Your task to perform on an android device: Show me popular games on the Play Store Image 0: 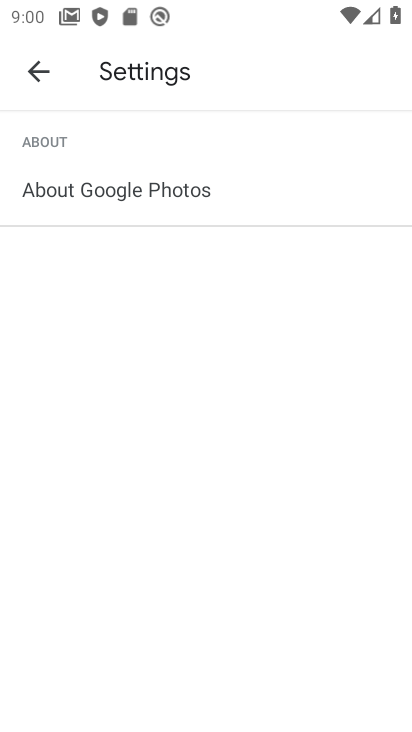
Step 0: press back button
Your task to perform on an android device: Show me popular games on the Play Store Image 1: 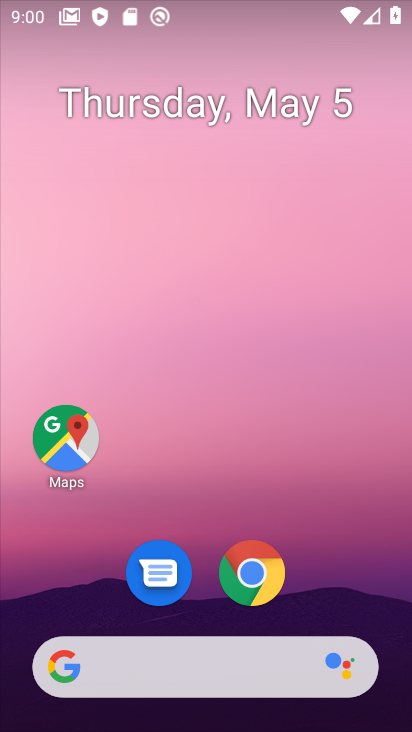
Step 1: drag from (253, 434) to (288, 39)
Your task to perform on an android device: Show me popular games on the Play Store Image 2: 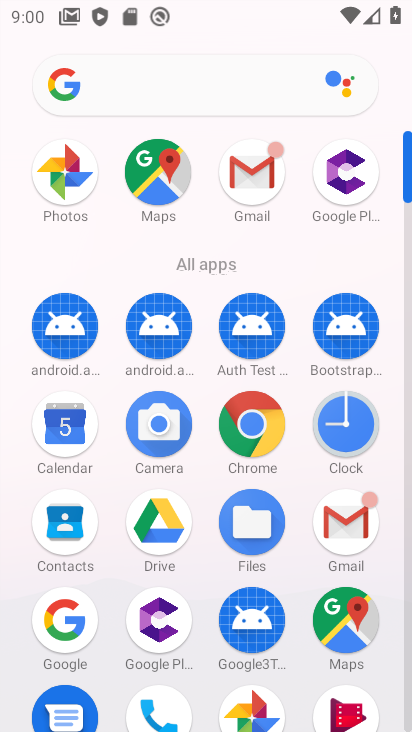
Step 2: drag from (193, 667) to (283, 86)
Your task to perform on an android device: Show me popular games on the Play Store Image 3: 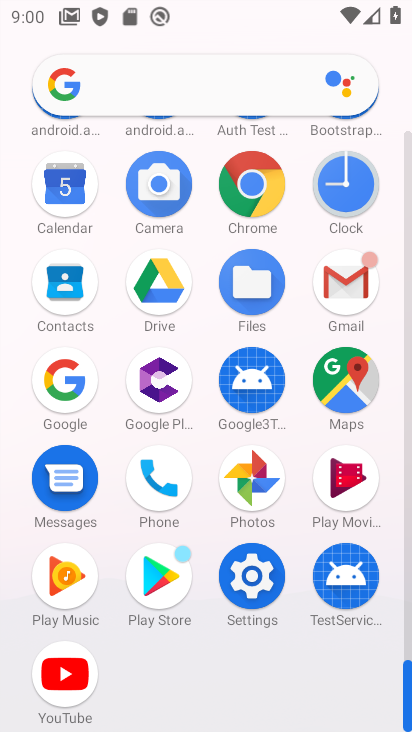
Step 3: click (160, 580)
Your task to perform on an android device: Show me popular games on the Play Store Image 4: 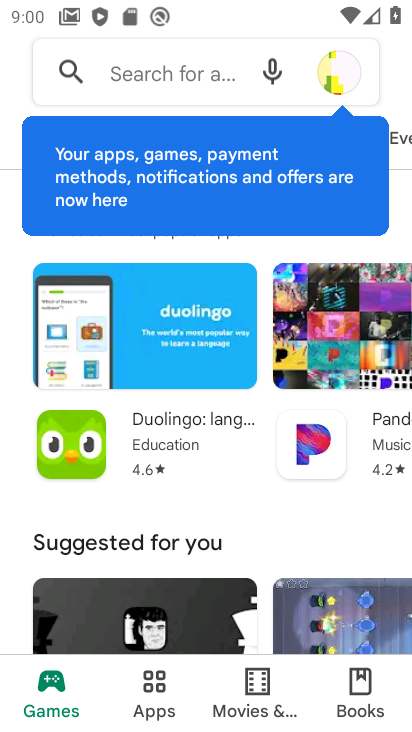
Step 4: drag from (136, 566) to (291, 130)
Your task to perform on an android device: Show me popular games on the Play Store Image 5: 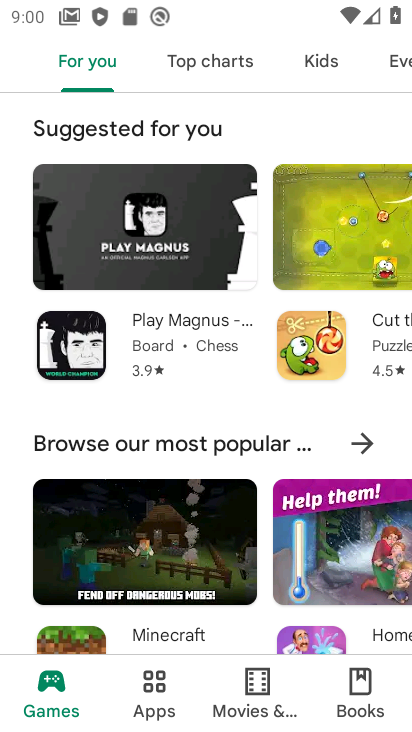
Step 5: drag from (277, 545) to (287, 407)
Your task to perform on an android device: Show me popular games on the Play Store Image 6: 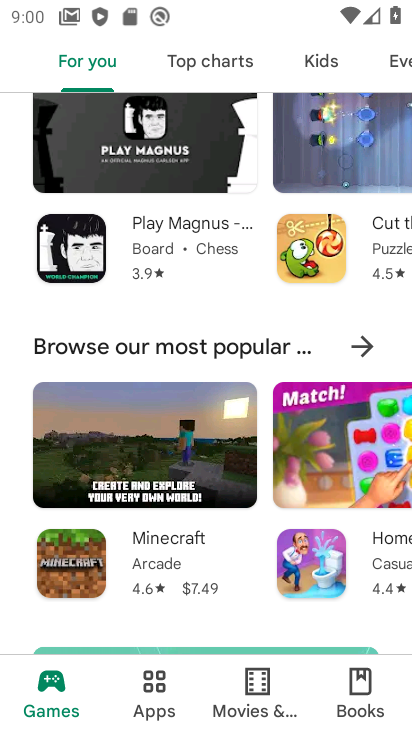
Step 6: click (374, 337)
Your task to perform on an android device: Show me popular games on the Play Store Image 7: 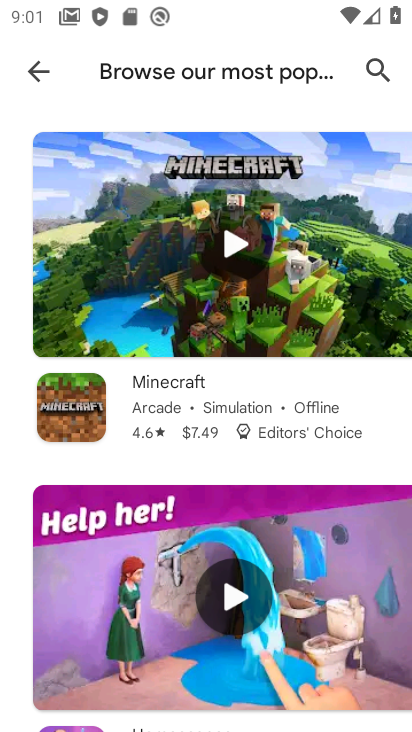
Step 7: task complete